Your task to perform on an android device: Play the new Selena Gomez video on YouTube Image 0: 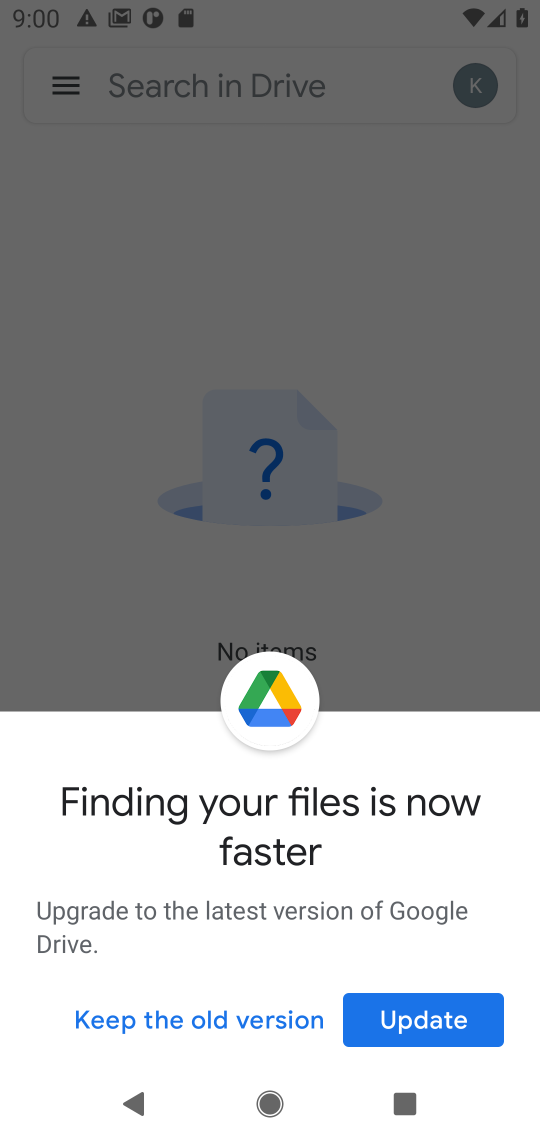
Step 0: press home button
Your task to perform on an android device: Play the new Selena Gomez video on YouTube Image 1: 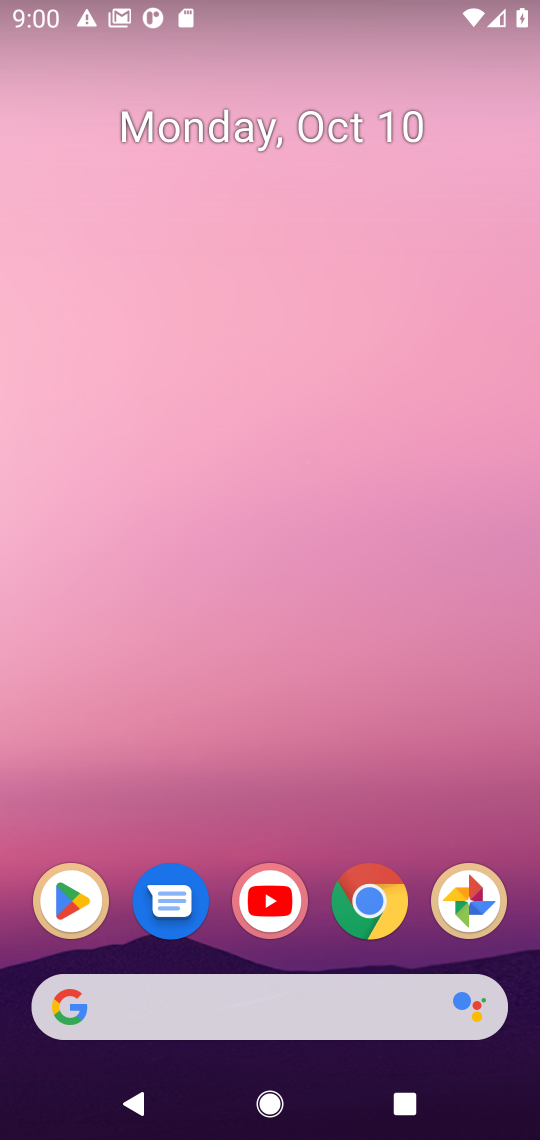
Step 1: drag from (453, 803) to (442, 197)
Your task to perform on an android device: Play the new Selena Gomez video on YouTube Image 2: 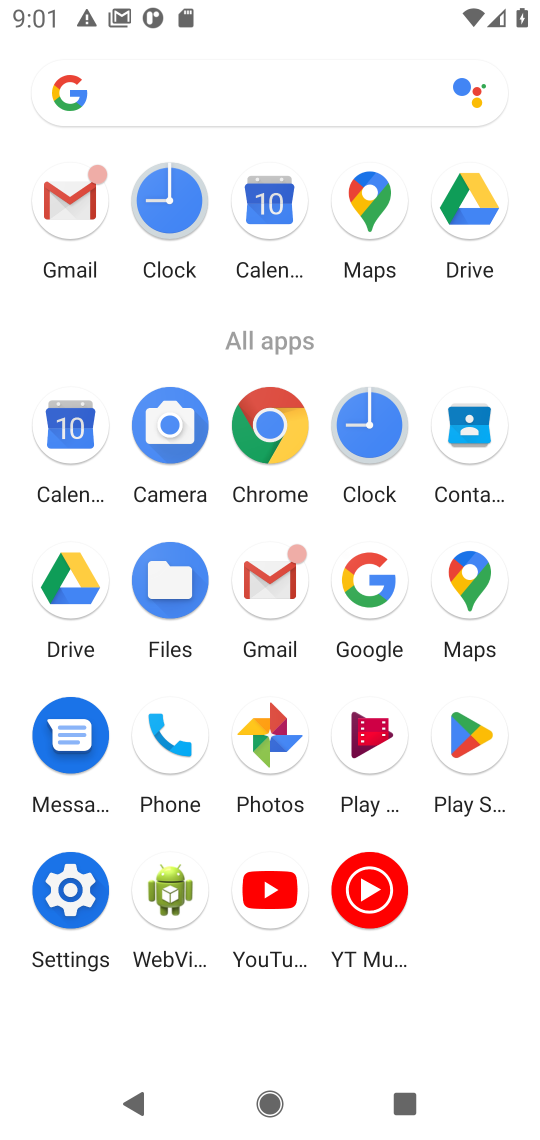
Step 2: click (276, 889)
Your task to perform on an android device: Play the new Selena Gomez video on YouTube Image 3: 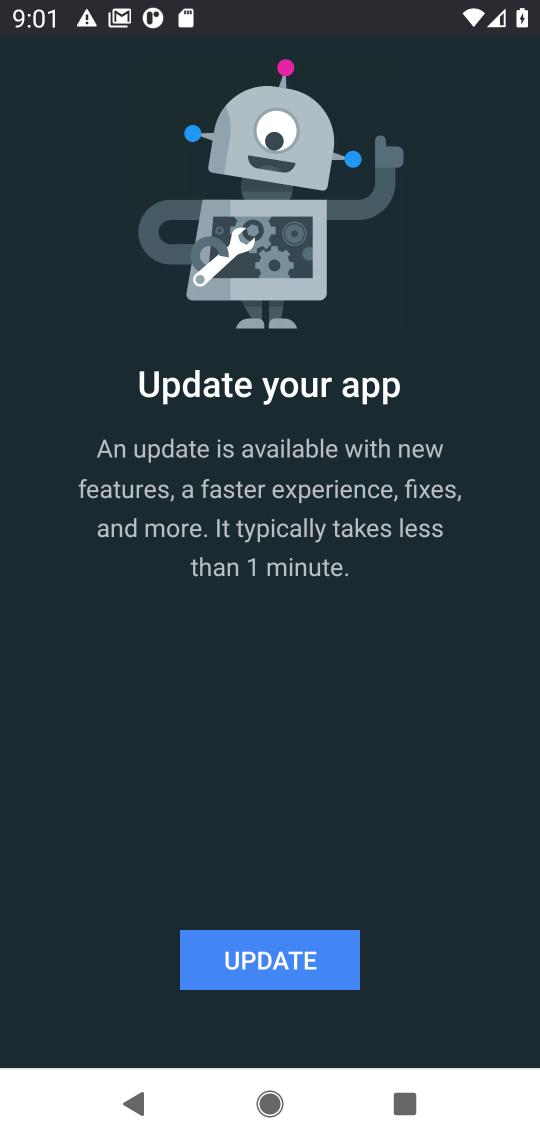
Step 3: click (302, 949)
Your task to perform on an android device: Play the new Selena Gomez video on YouTube Image 4: 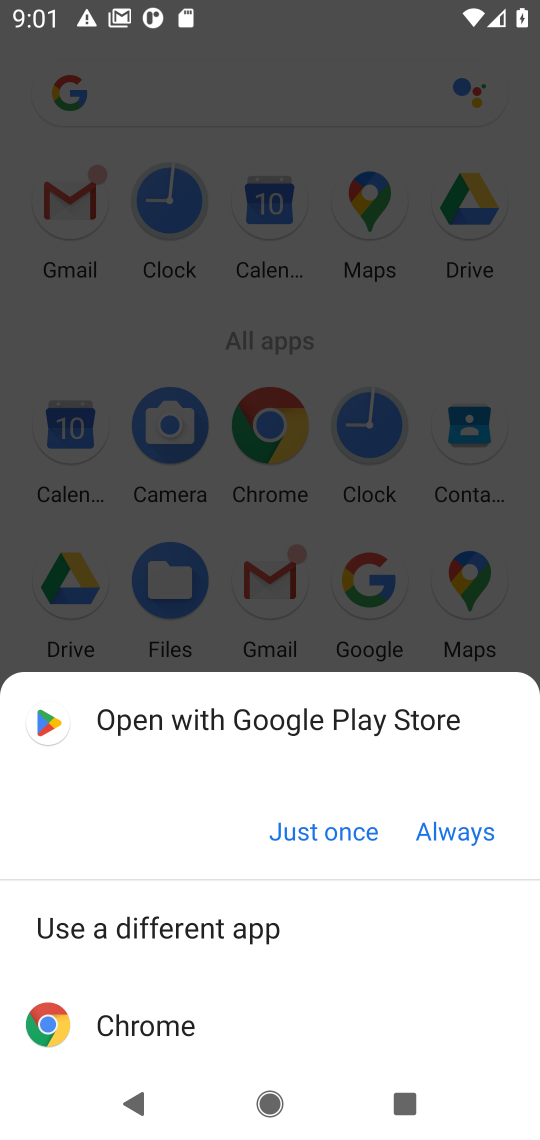
Step 4: click (322, 833)
Your task to perform on an android device: Play the new Selena Gomez video on YouTube Image 5: 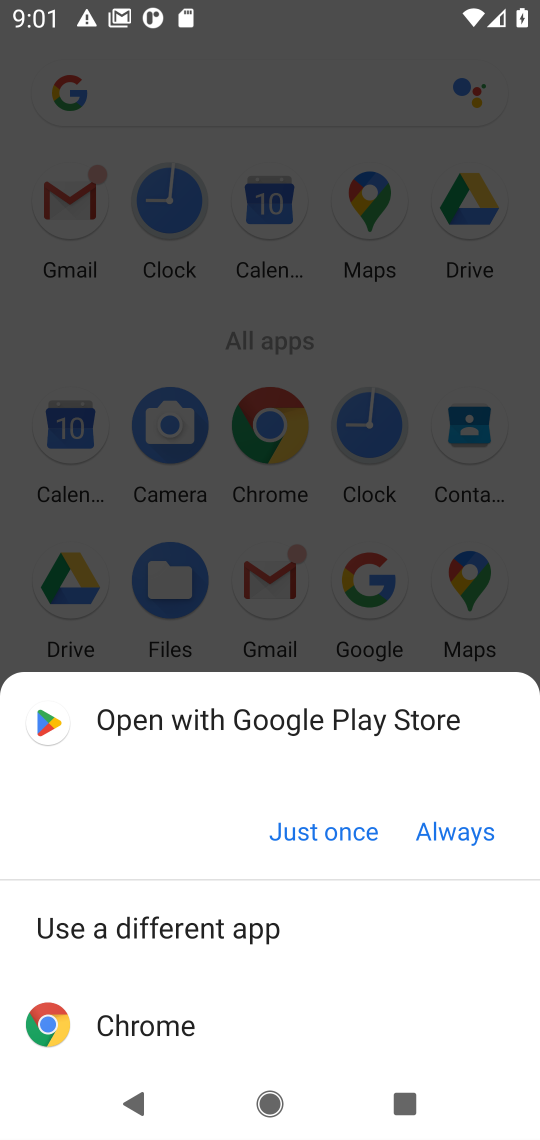
Step 5: task complete